Your task to perform on an android device: Go to Amazon Image 0: 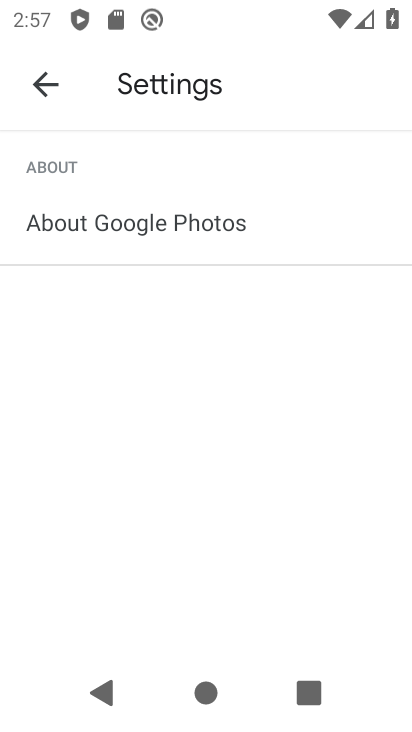
Step 0: press home button
Your task to perform on an android device: Go to Amazon Image 1: 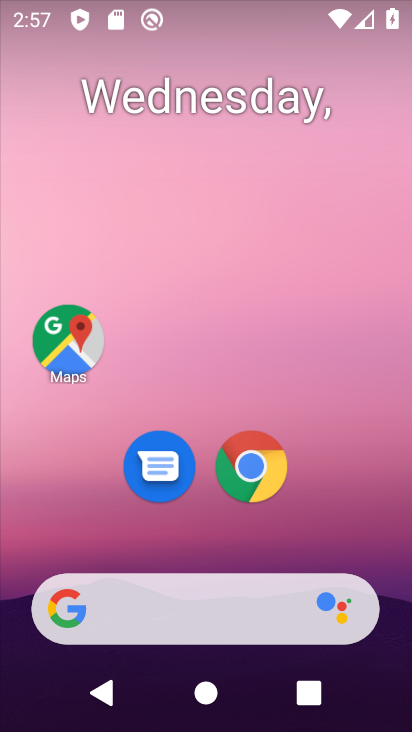
Step 1: drag from (214, 585) to (119, 13)
Your task to perform on an android device: Go to Amazon Image 2: 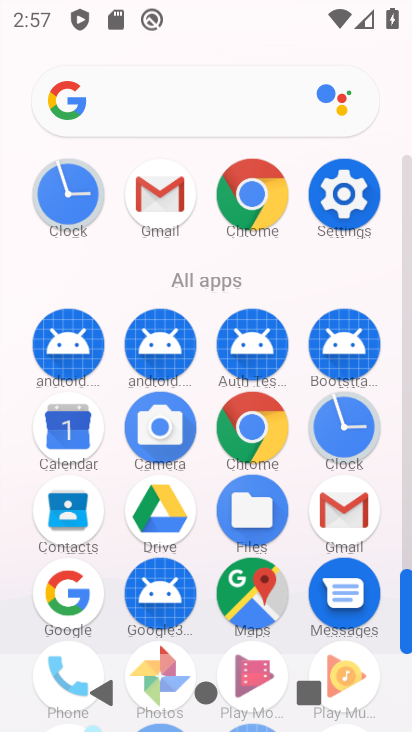
Step 2: click (255, 202)
Your task to perform on an android device: Go to Amazon Image 3: 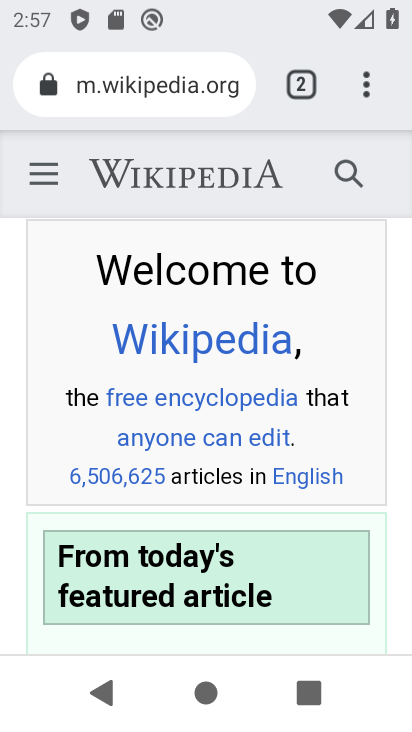
Step 3: click (285, 85)
Your task to perform on an android device: Go to Amazon Image 4: 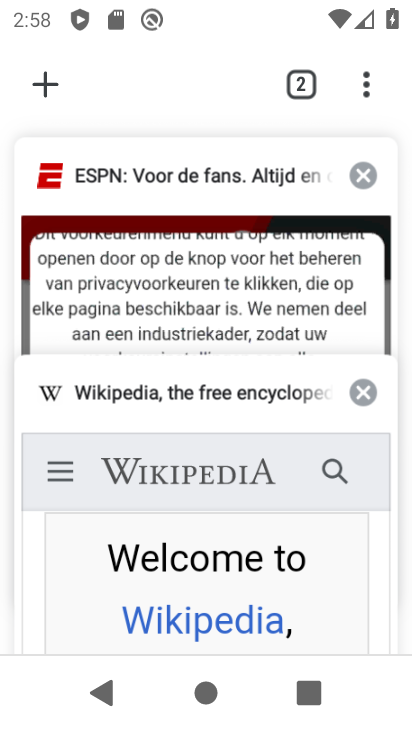
Step 4: click (42, 73)
Your task to perform on an android device: Go to Amazon Image 5: 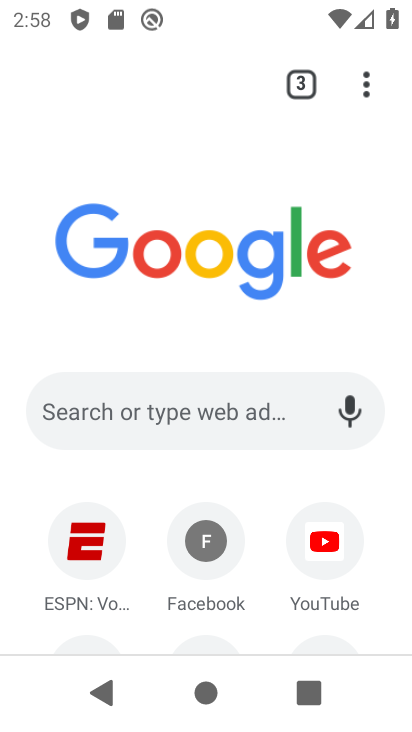
Step 5: drag from (165, 587) to (102, 107)
Your task to perform on an android device: Go to Amazon Image 6: 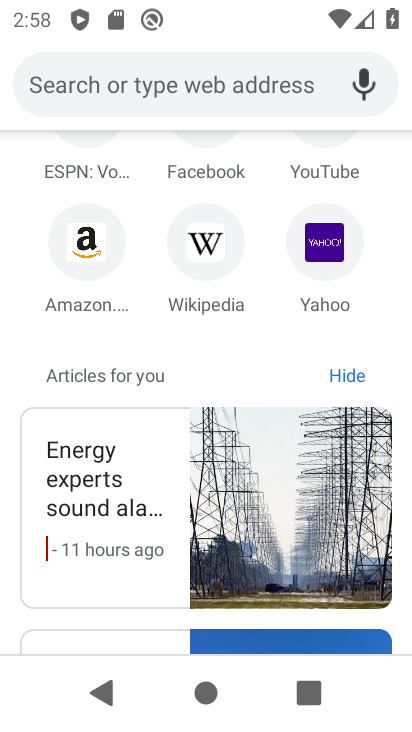
Step 6: click (91, 255)
Your task to perform on an android device: Go to Amazon Image 7: 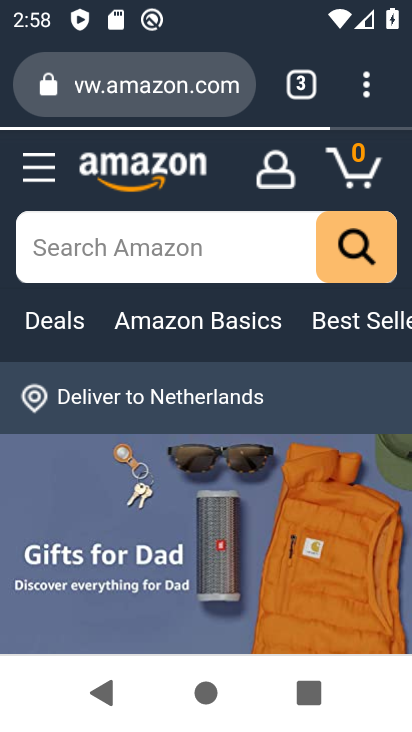
Step 7: task complete